Your task to perform on an android device: add a label to a message in the gmail app Image 0: 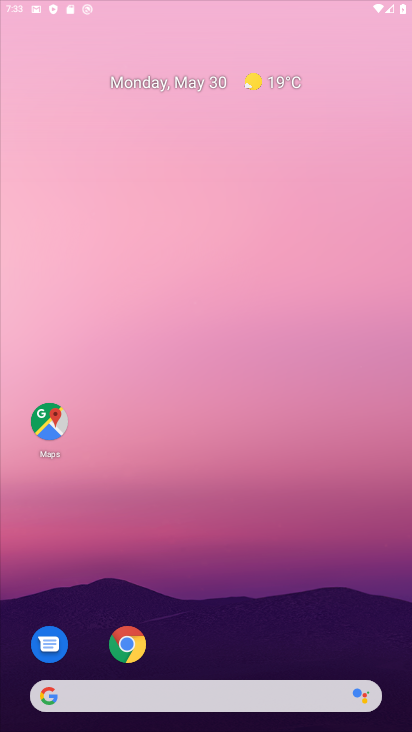
Step 0: click (250, 0)
Your task to perform on an android device: add a label to a message in the gmail app Image 1: 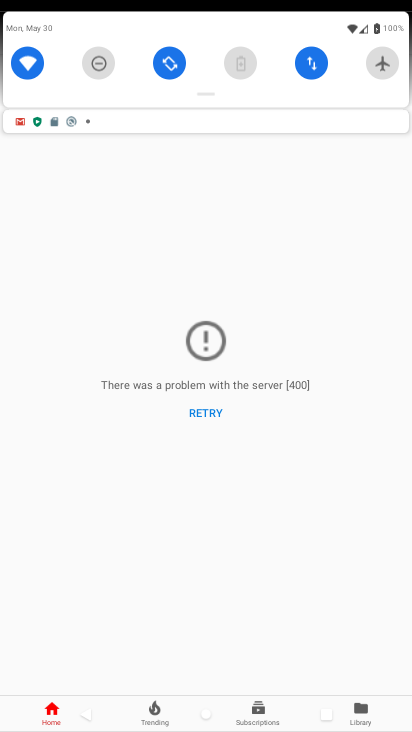
Step 1: press home button
Your task to perform on an android device: add a label to a message in the gmail app Image 2: 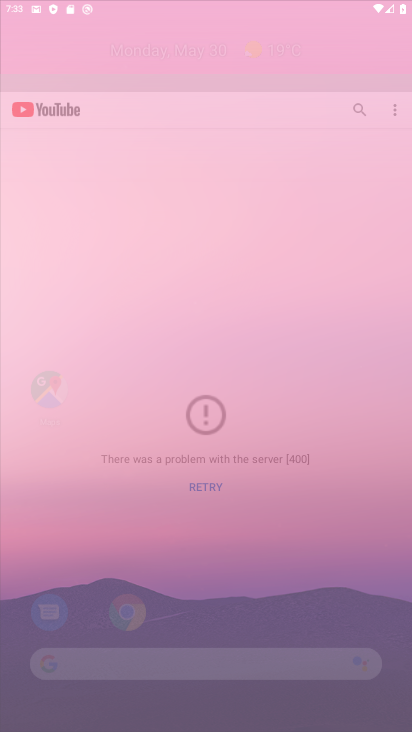
Step 2: drag from (228, 588) to (260, 98)
Your task to perform on an android device: add a label to a message in the gmail app Image 3: 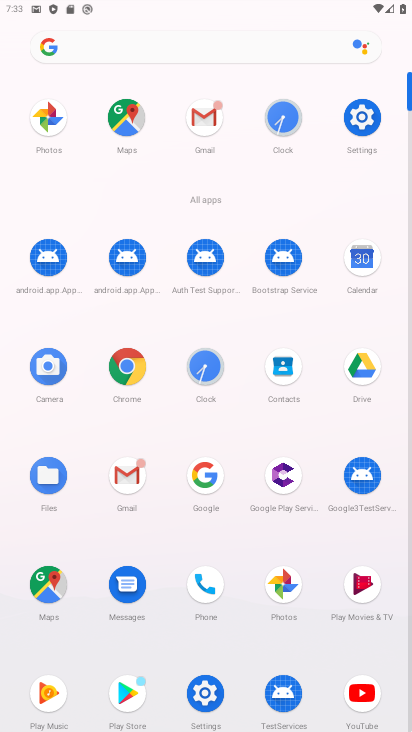
Step 3: click (117, 479)
Your task to perform on an android device: add a label to a message in the gmail app Image 4: 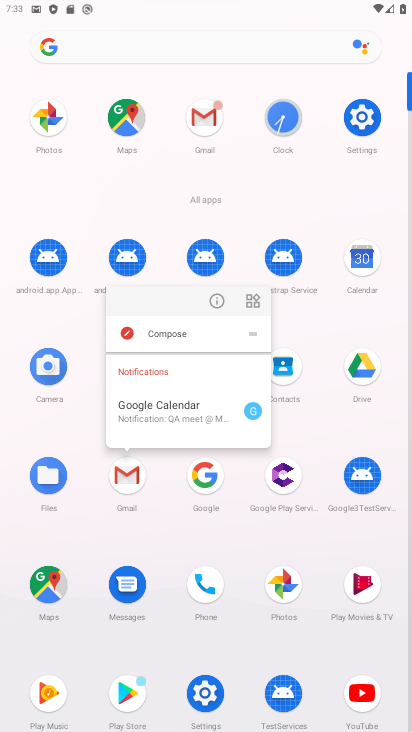
Step 4: click (213, 290)
Your task to perform on an android device: add a label to a message in the gmail app Image 5: 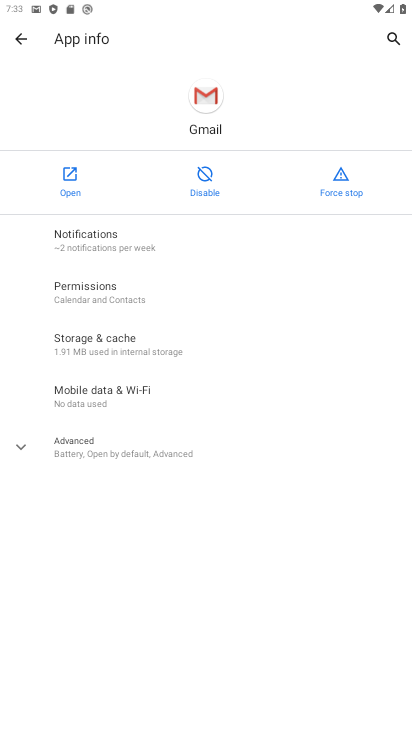
Step 5: click (70, 177)
Your task to perform on an android device: add a label to a message in the gmail app Image 6: 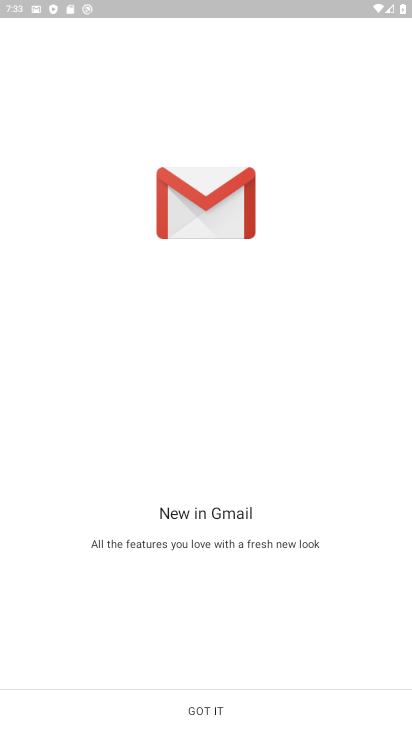
Step 6: click (195, 718)
Your task to perform on an android device: add a label to a message in the gmail app Image 7: 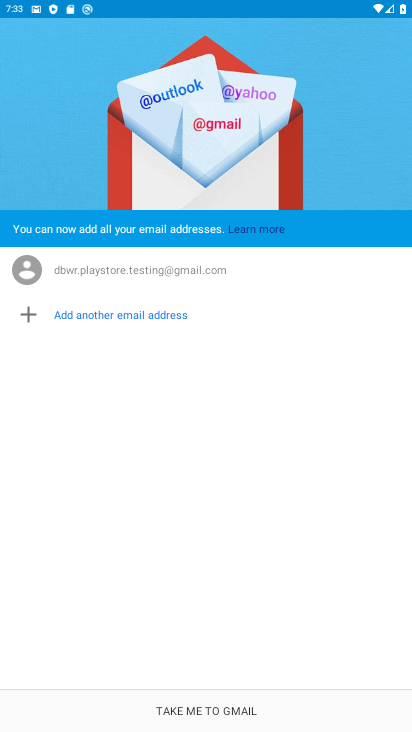
Step 7: click (197, 708)
Your task to perform on an android device: add a label to a message in the gmail app Image 8: 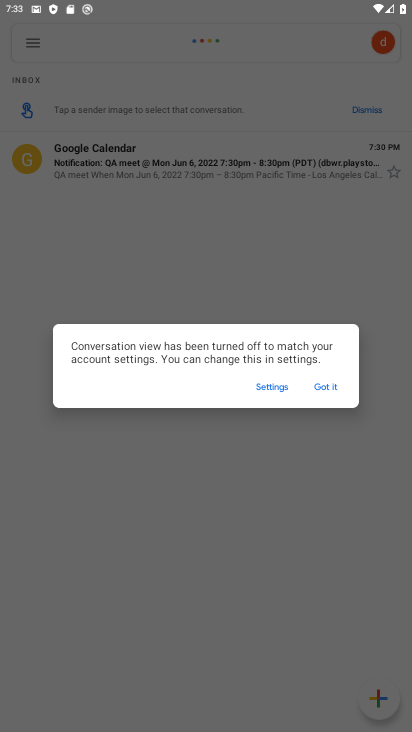
Step 8: click (319, 391)
Your task to perform on an android device: add a label to a message in the gmail app Image 9: 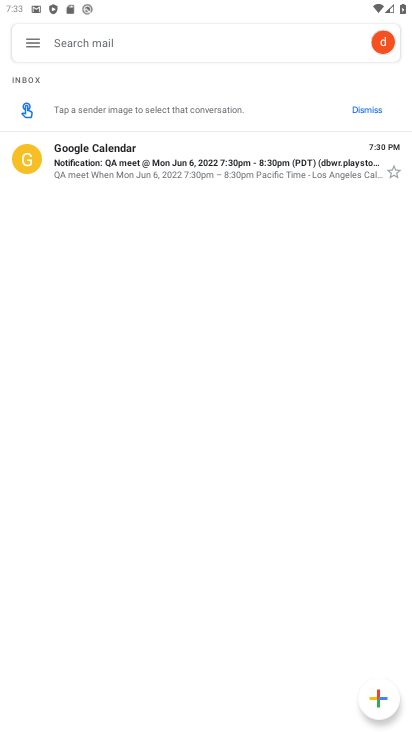
Step 9: drag from (205, 288) to (354, 664)
Your task to perform on an android device: add a label to a message in the gmail app Image 10: 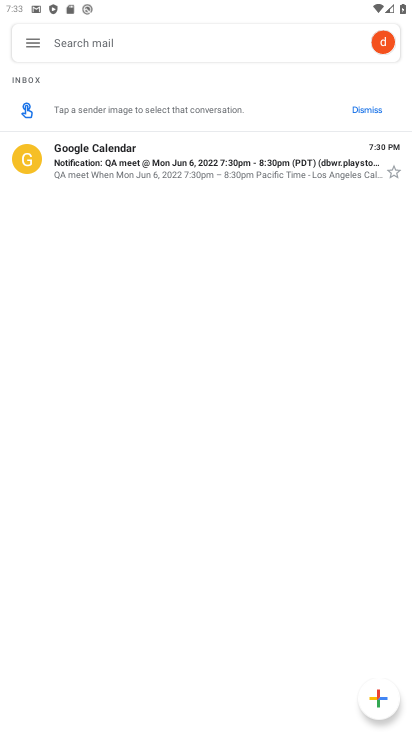
Step 10: drag from (224, 411) to (236, 510)
Your task to perform on an android device: add a label to a message in the gmail app Image 11: 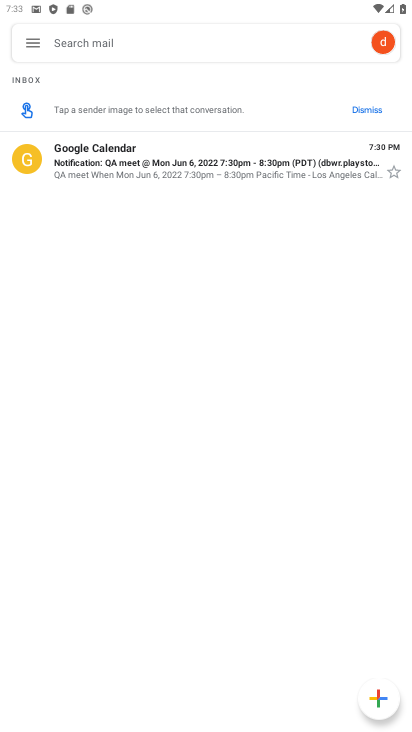
Step 11: click (179, 146)
Your task to perform on an android device: add a label to a message in the gmail app Image 12: 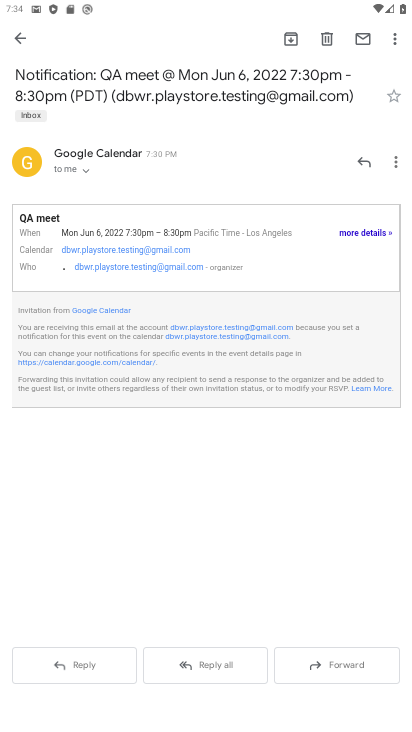
Step 12: click (400, 99)
Your task to perform on an android device: add a label to a message in the gmail app Image 13: 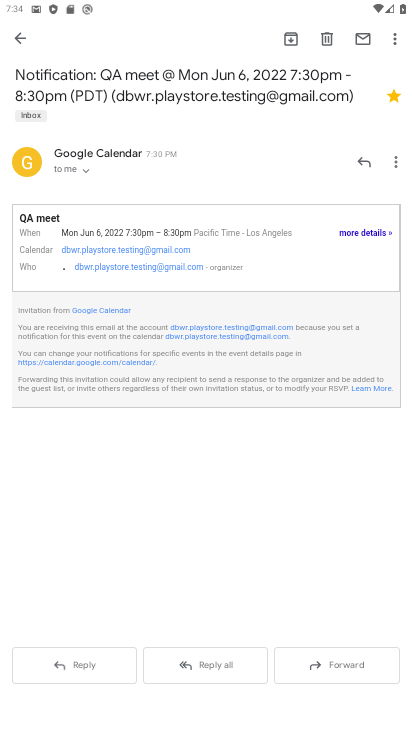
Step 13: task complete